Your task to perform on an android device: allow notifications from all sites in the chrome app Image 0: 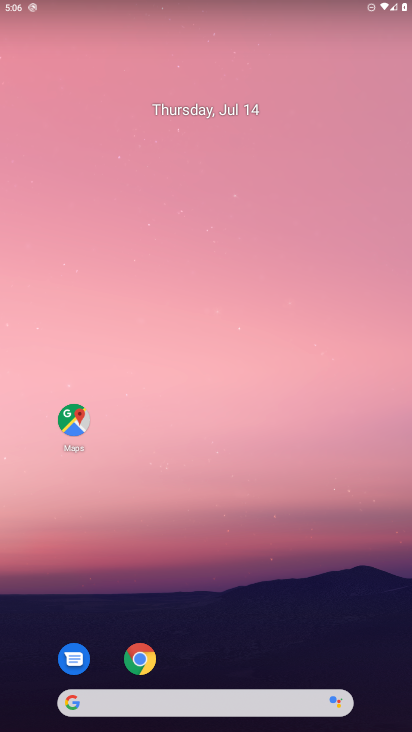
Step 0: click (141, 652)
Your task to perform on an android device: allow notifications from all sites in the chrome app Image 1: 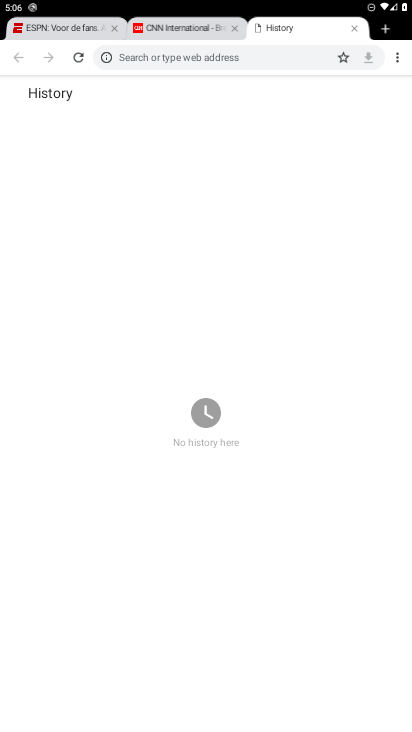
Step 1: click (398, 57)
Your task to perform on an android device: allow notifications from all sites in the chrome app Image 2: 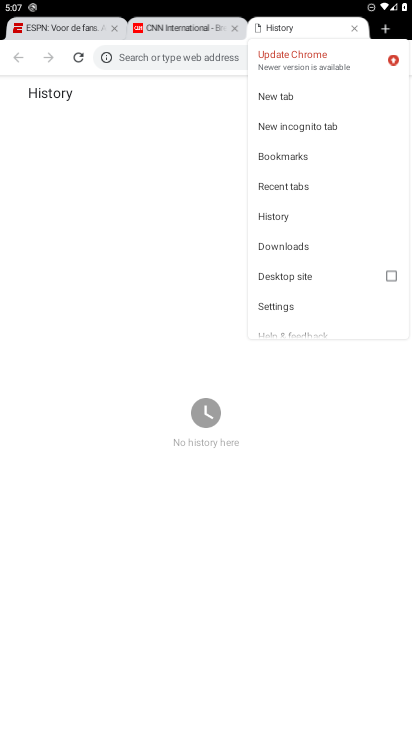
Step 2: click (302, 304)
Your task to perform on an android device: allow notifications from all sites in the chrome app Image 3: 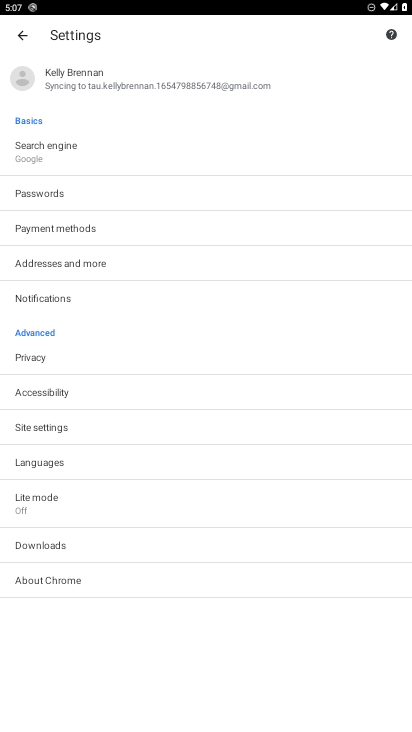
Step 3: click (75, 426)
Your task to perform on an android device: allow notifications from all sites in the chrome app Image 4: 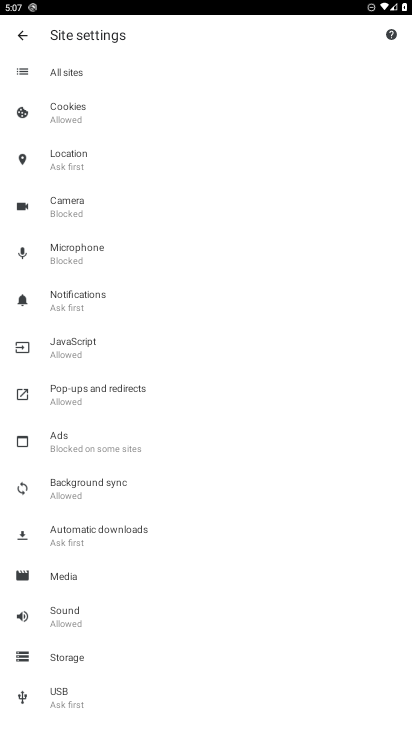
Step 4: click (82, 70)
Your task to perform on an android device: allow notifications from all sites in the chrome app Image 5: 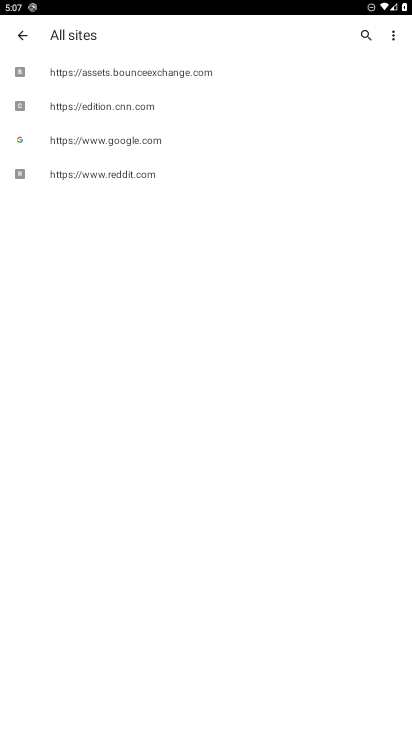
Step 5: click (121, 72)
Your task to perform on an android device: allow notifications from all sites in the chrome app Image 6: 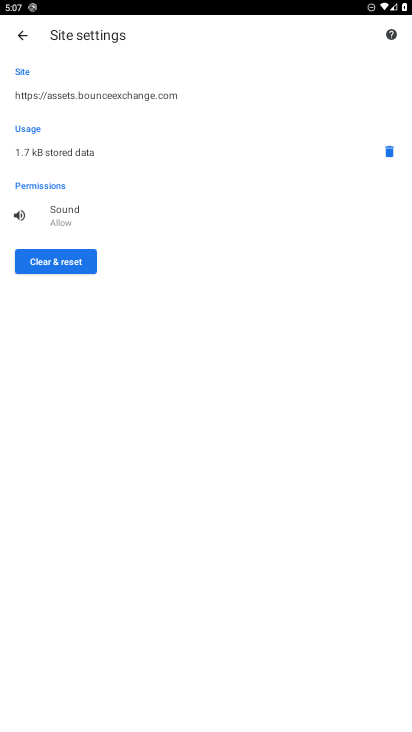
Step 6: task complete